Your task to perform on an android device: check out phone information Image 0: 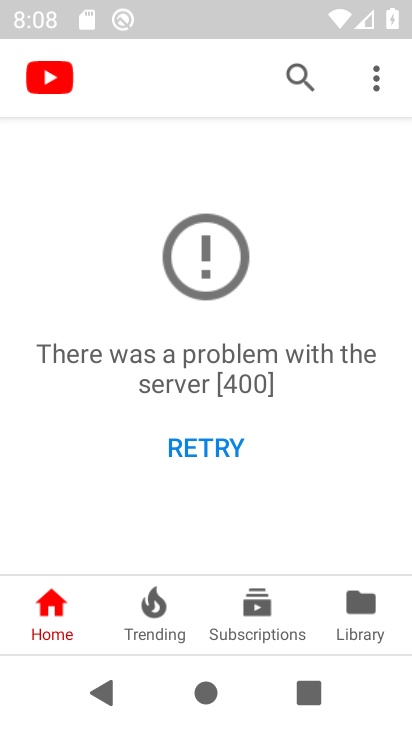
Step 0: press home button
Your task to perform on an android device: check out phone information Image 1: 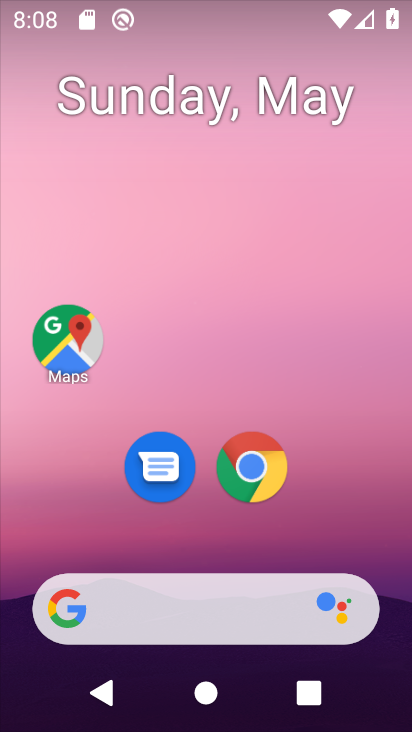
Step 1: drag from (331, 514) to (316, 158)
Your task to perform on an android device: check out phone information Image 2: 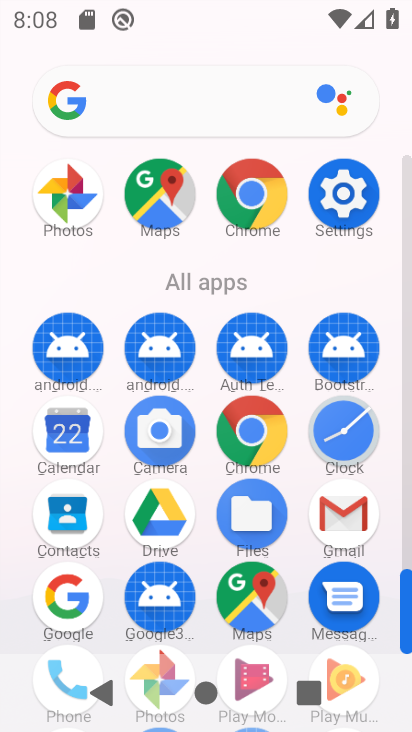
Step 2: click (331, 213)
Your task to perform on an android device: check out phone information Image 3: 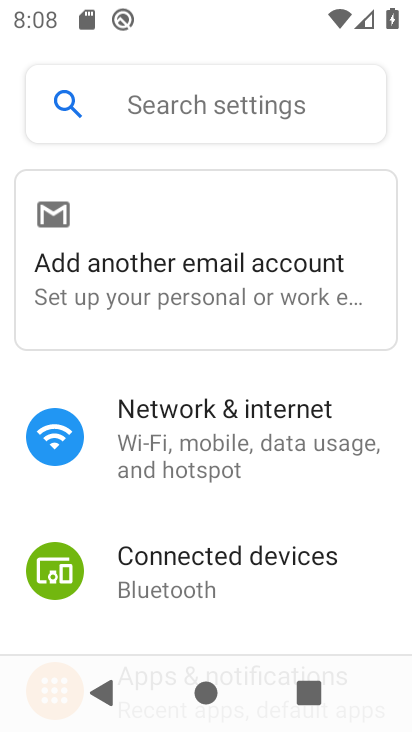
Step 3: drag from (354, 502) to (349, 230)
Your task to perform on an android device: check out phone information Image 4: 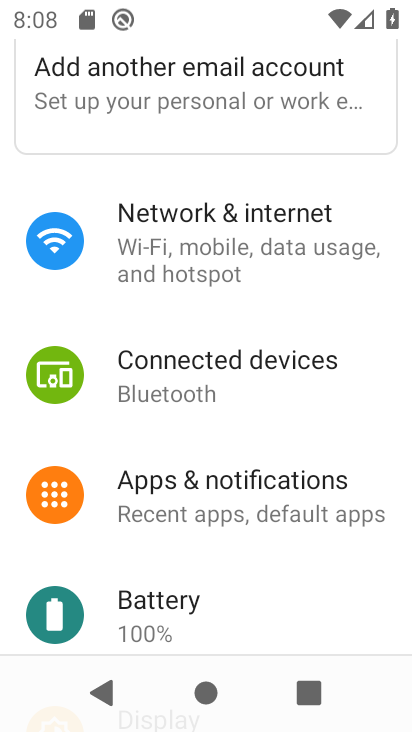
Step 4: drag from (334, 434) to (336, 157)
Your task to perform on an android device: check out phone information Image 5: 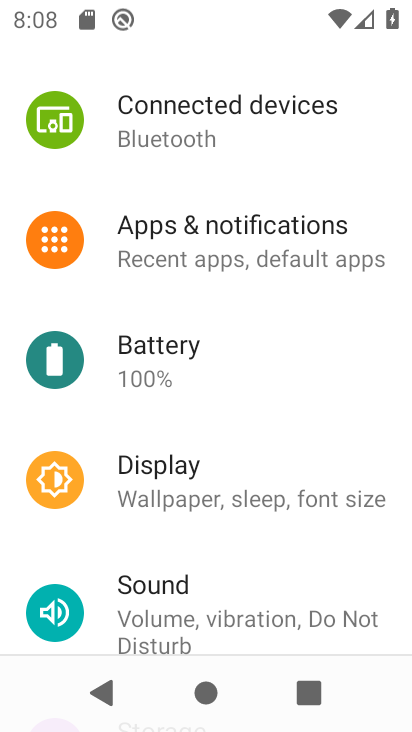
Step 5: drag from (327, 577) to (341, 199)
Your task to perform on an android device: check out phone information Image 6: 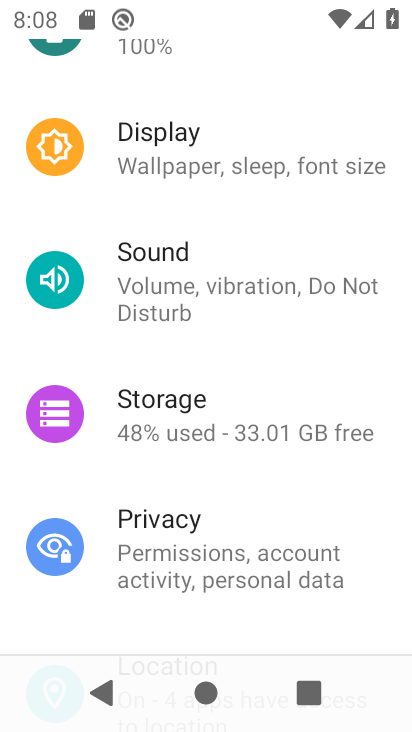
Step 6: drag from (291, 533) to (300, 0)
Your task to perform on an android device: check out phone information Image 7: 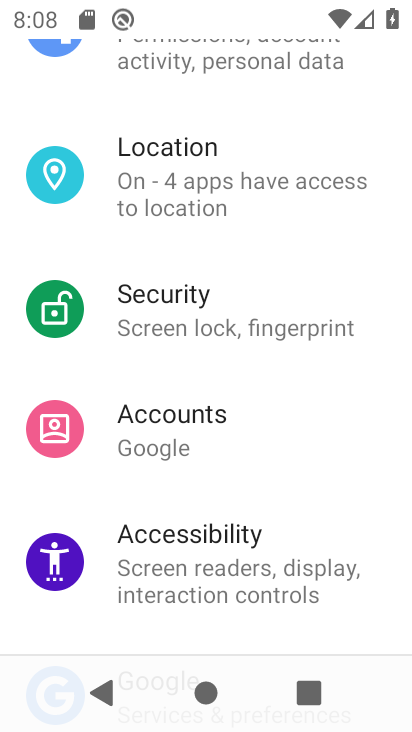
Step 7: drag from (272, 596) to (286, 146)
Your task to perform on an android device: check out phone information Image 8: 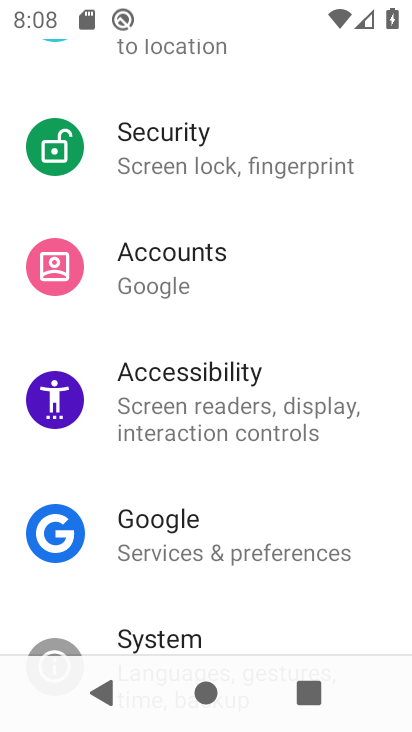
Step 8: drag from (223, 657) to (296, 214)
Your task to perform on an android device: check out phone information Image 9: 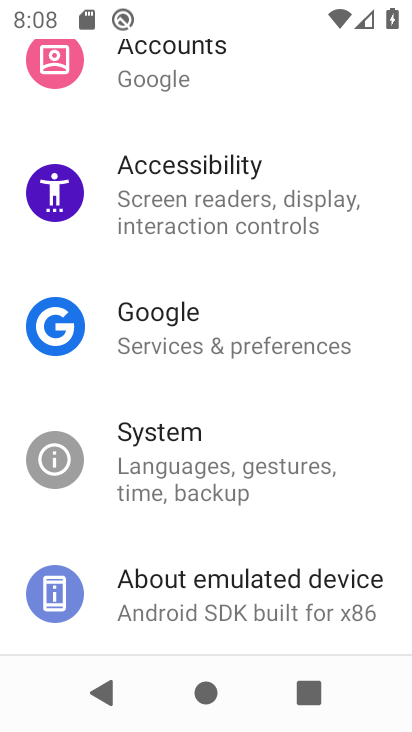
Step 9: click (196, 580)
Your task to perform on an android device: check out phone information Image 10: 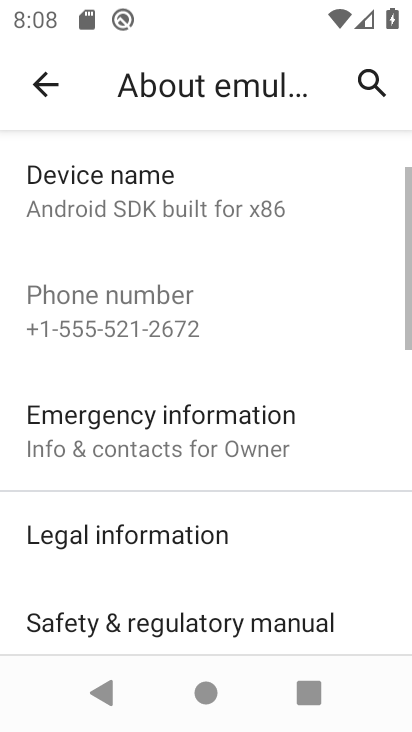
Step 10: task complete